Your task to perform on an android device: Search for a new grill on Home Depot Image 0: 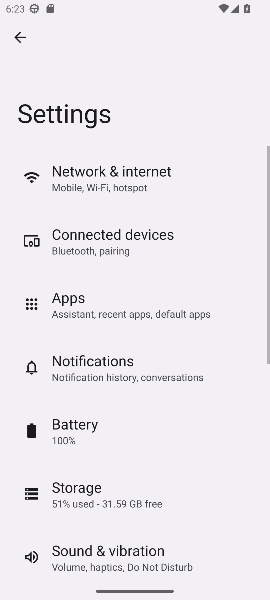
Step 0: press home button
Your task to perform on an android device: Search for a new grill on Home Depot Image 1: 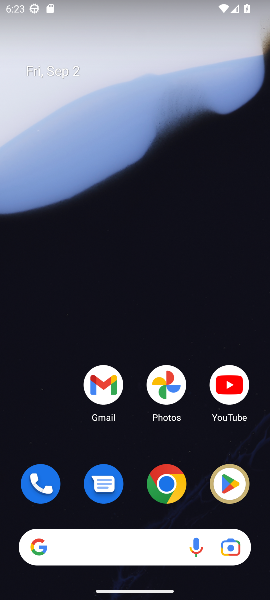
Step 1: click (170, 482)
Your task to perform on an android device: Search for a new grill on Home Depot Image 2: 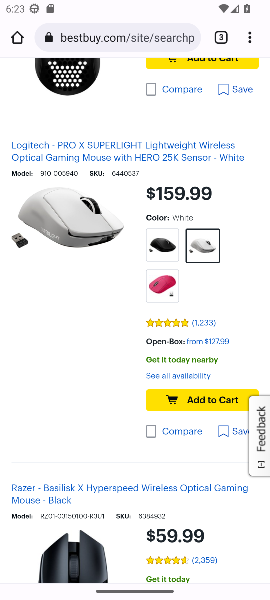
Step 2: click (170, 37)
Your task to perform on an android device: Search for a new grill on Home Depot Image 3: 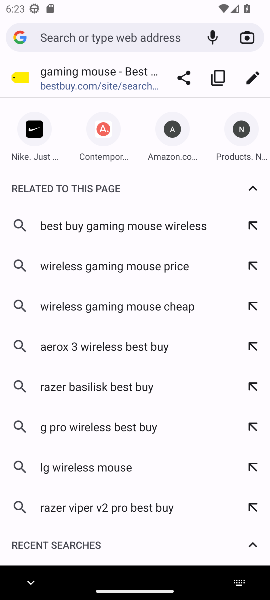
Step 3: type "Home Depot"
Your task to perform on an android device: Search for a new grill on Home Depot Image 4: 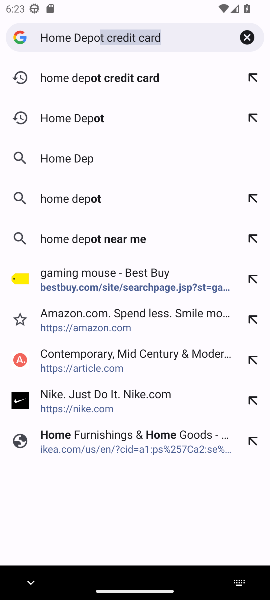
Step 4: press enter
Your task to perform on an android device: Search for a new grill on Home Depot Image 5: 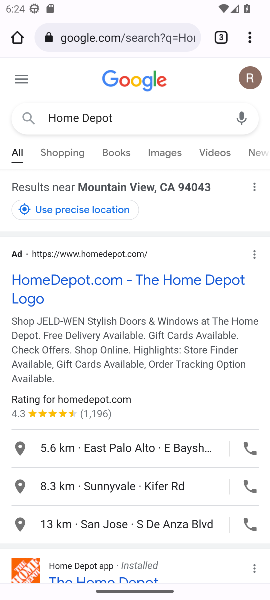
Step 5: click (153, 280)
Your task to perform on an android device: Search for a new grill on Home Depot Image 6: 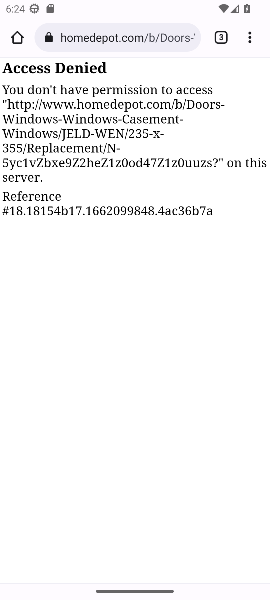
Step 6: task complete